Your task to perform on an android device: Search for pizza restaurants on Maps Image 0: 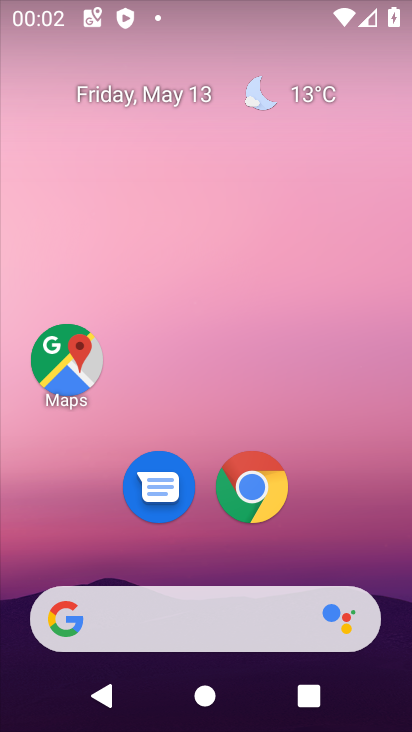
Step 0: click (70, 353)
Your task to perform on an android device: Search for pizza restaurants on Maps Image 1: 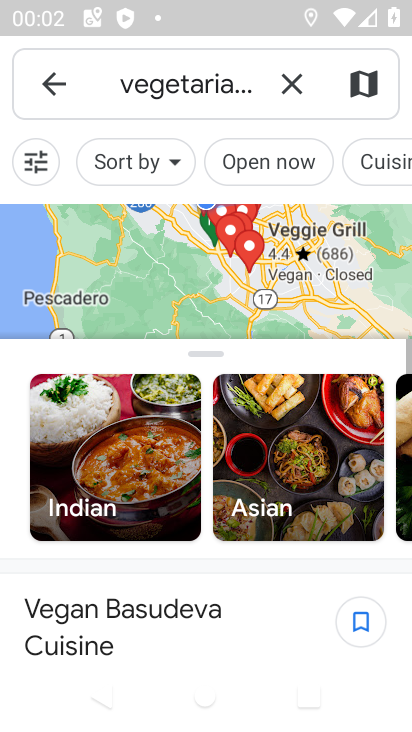
Step 1: click (291, 90)
Your task to perform on an android device: Search for pizza restaurants on Maps Image 2: 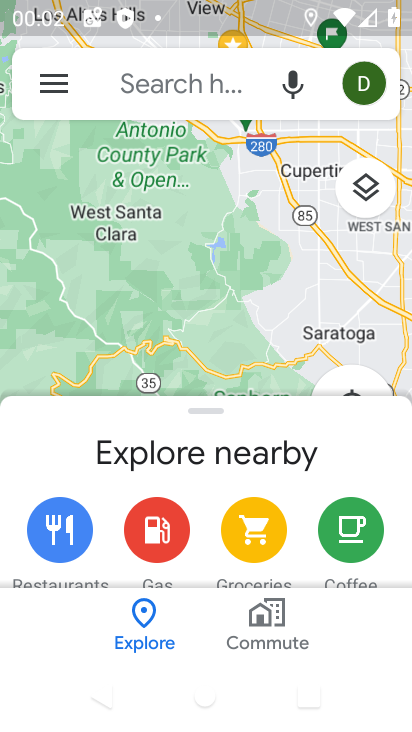
Step 2: click (202, 75)
Your task to perform on an android device: Search for pizza restaurants on Maps Image 3: 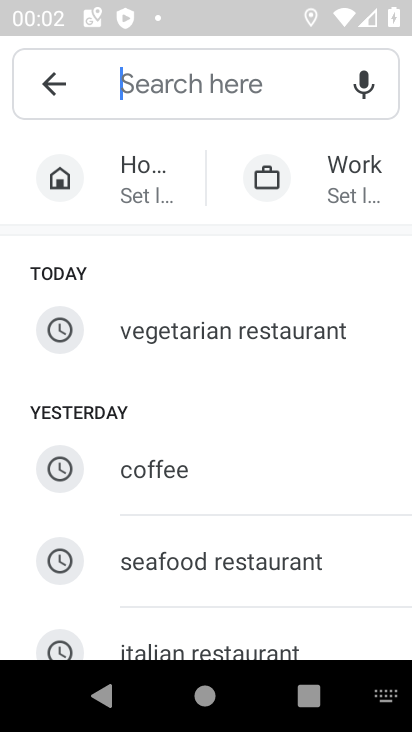
Step 3: drag from (188, 608) to (247, 309)
Your task to perform on an android device: Search for pizza restaurants on Maps Image 4: 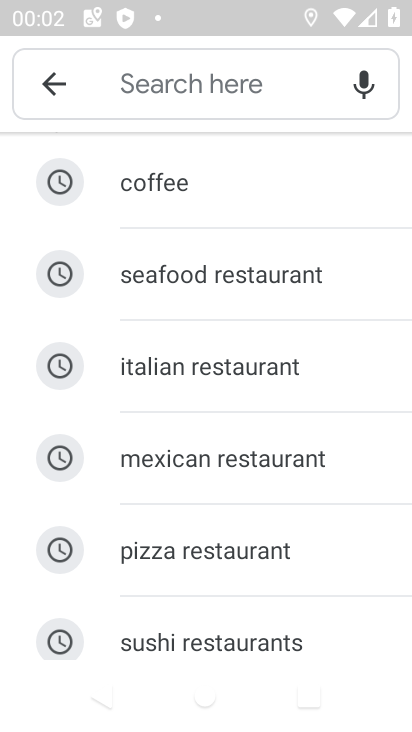
Step 4: click (191, 526)
Your task to perform on an android device: Search for pizza restaurants on Maps Image 5: 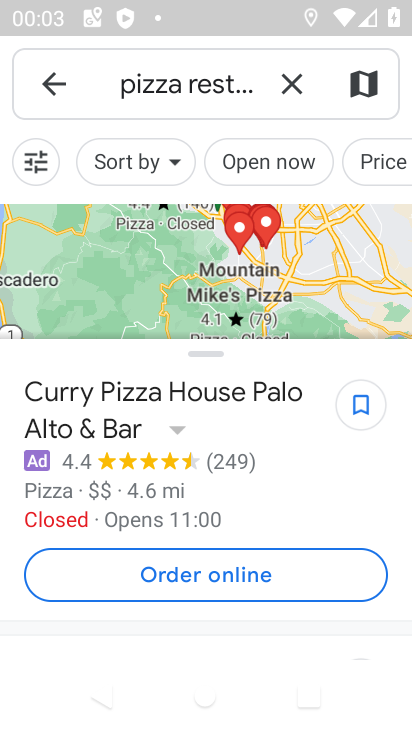
Step 5: task complete